Your task to perform on an android device: move a message to another label in the gmail app Image 0: 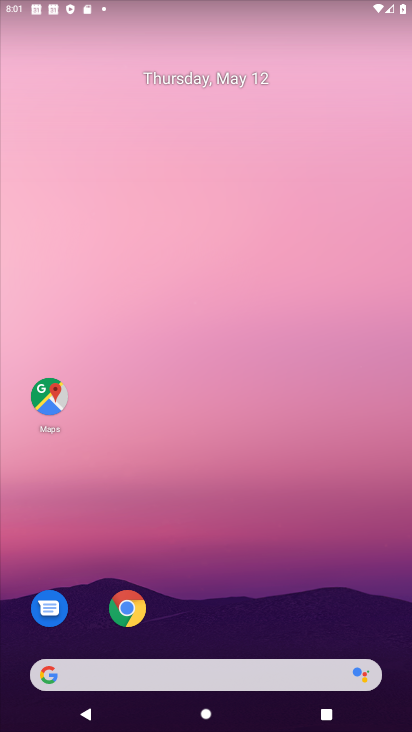
Step 0: drag from (265, 624) to (197, 211)
Your task to perform on an android device: move a message to another label in the gmail app Image 1: 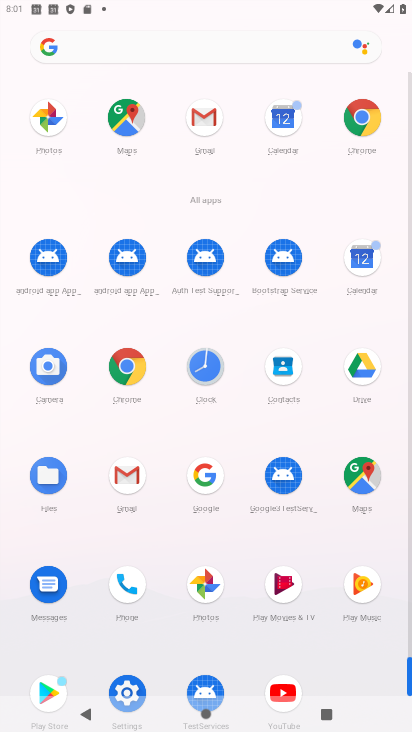
Step 1: click (204, 157)
Your task to perform on an android device: move a message to another label in the gmail app Image 2: 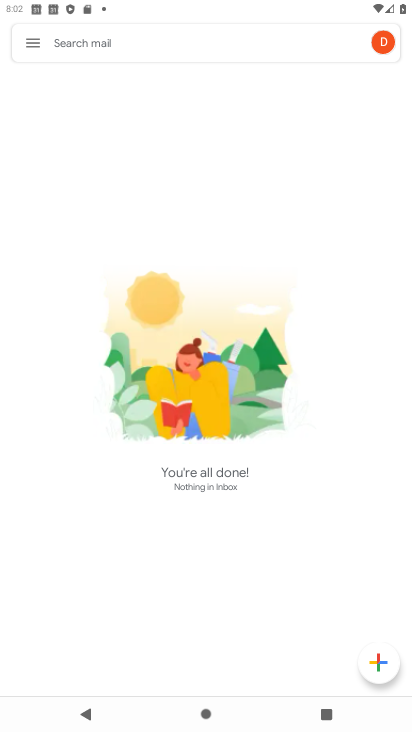
Step 2: click (39, 40)
Your task to perform on an android device: move a message to another label in the gmail app Image 3: 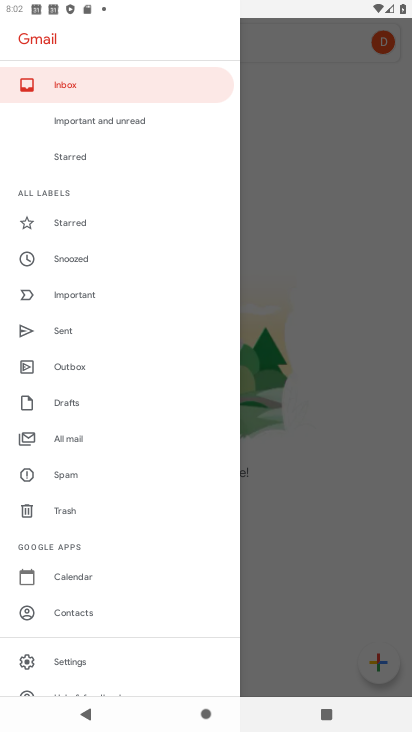
Step 3: click (79, 442)
Your task to perform on an android device: move a message to another label in the gmail app Image 4: 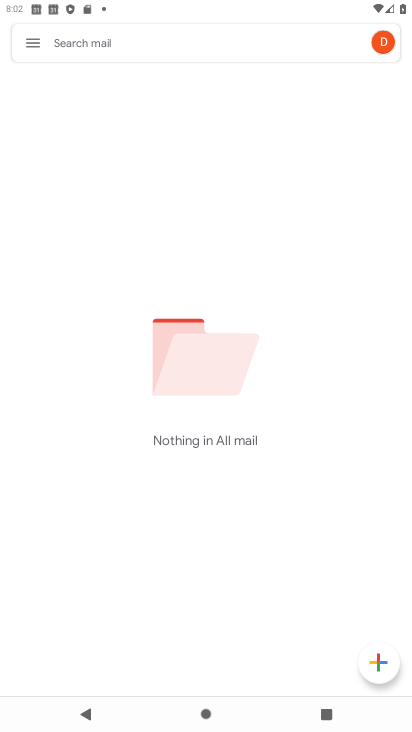
Step 4: task complete